Your task to perform on an android device: read, delete, or share a saved page in the chrome app Image 0: 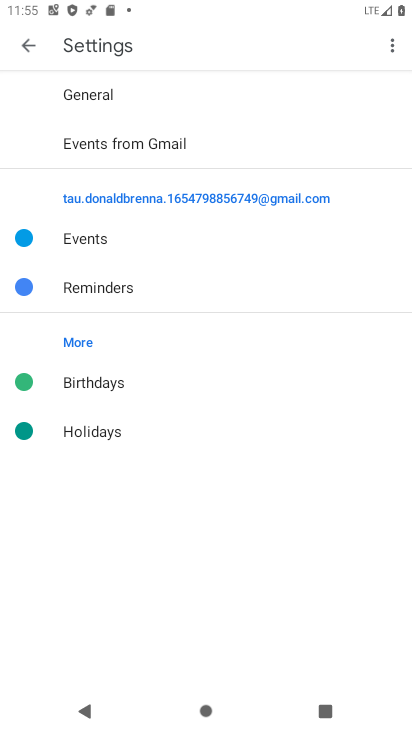
Step 0: press home button
Your task to perform on an android device: read, delete, or share a saved page in the chrome app Image 1: 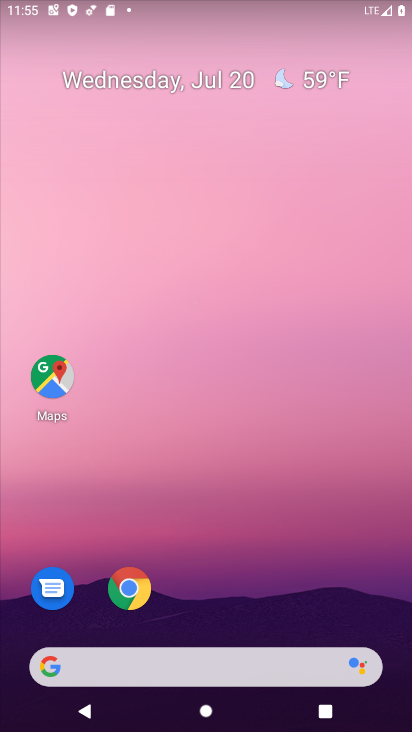
Step 1: drag from (330, 446) to (292, 32)
Your task to perform on an android device: read, delete, or share a saved page in the chrome app Image 2: 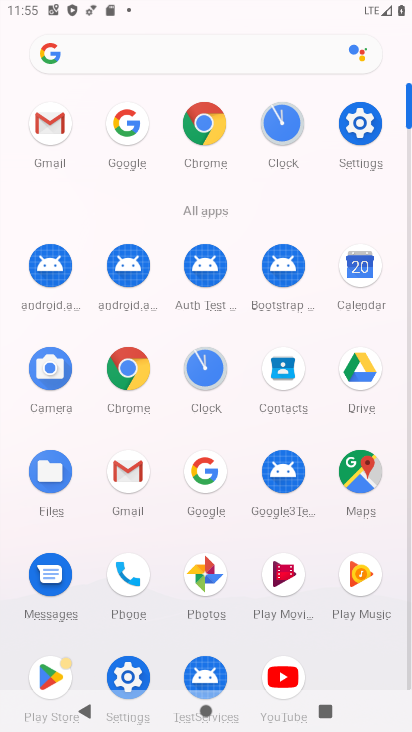
Step 2: click (205, 134)
Your task to perform on an android device: read, delete, or share a saved page in the chrome app Image 3: 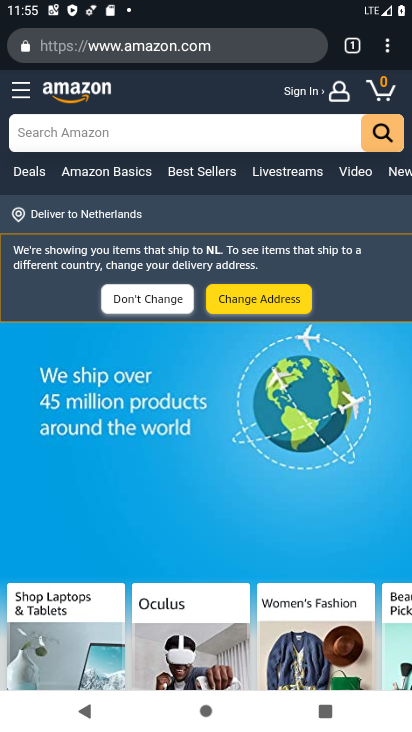
Step 3: task complete